Your task to perform on an android device: Is it going to rain this weekend? Image 0: 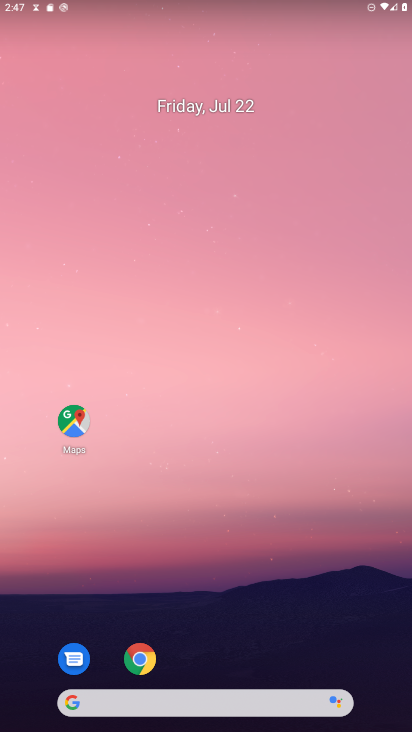
Step 0: drag from (244, 508) to (220, 116)
Your task to perform on an android device: Is it going to rain this weekend? Image 1: 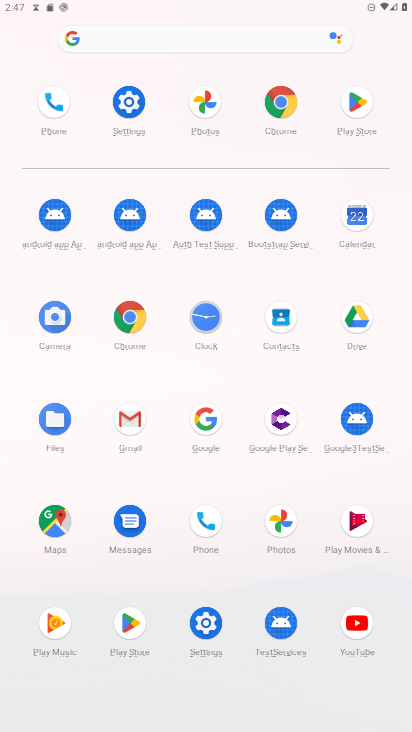
Step 1: click (211, 427)
Your task to perform on an android device: Is it going to rain this weekend? Image 2: 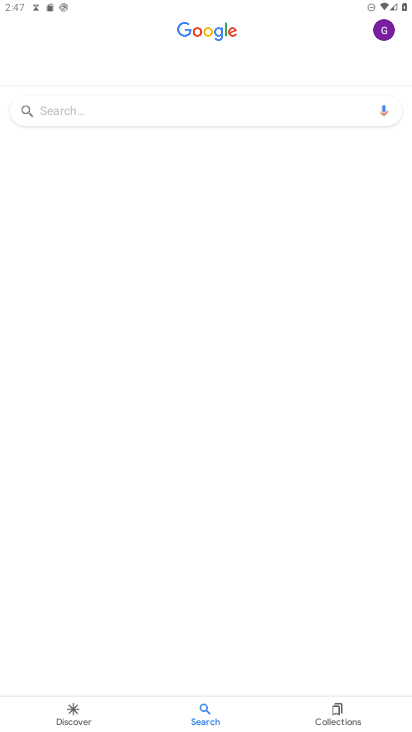
Step 2: click (139, 113)
Your task to perform on an android device: Is it going to rain this weekend? Image 3: 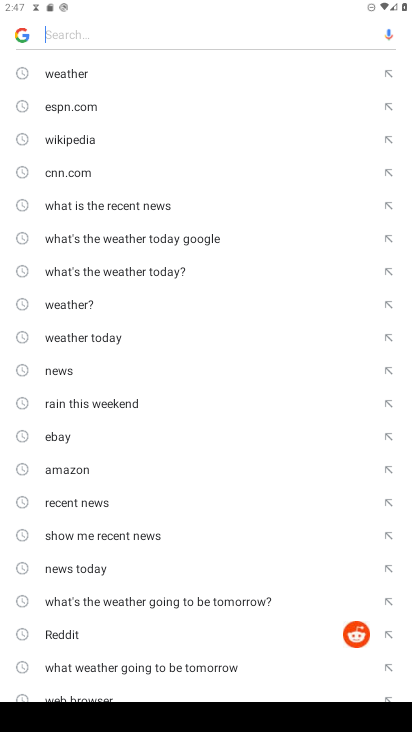
Step 3: click (53, 79)
Your task to perform on an android device: Is it going to rain this weekend? Image 4: 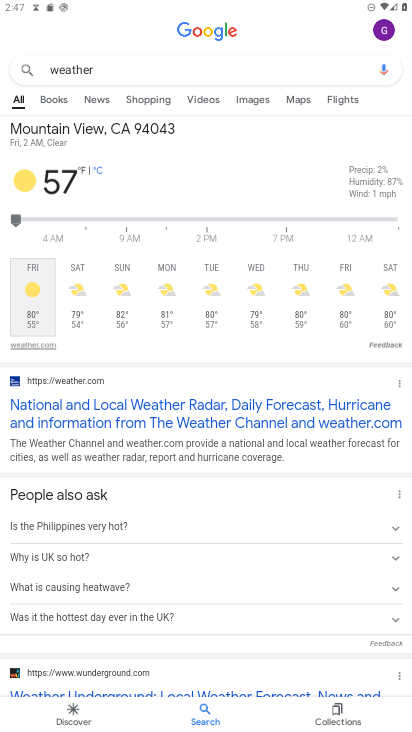
Step 4: task complete